Your task to perform on an android device: snooze an email in the gmail app Image 0: 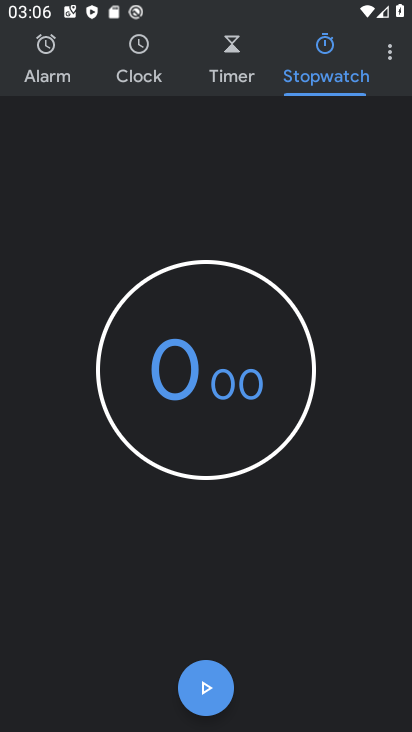
Step 0: press home button
Your task to perform on an android device: snooze an email in the gmail app Image 1: 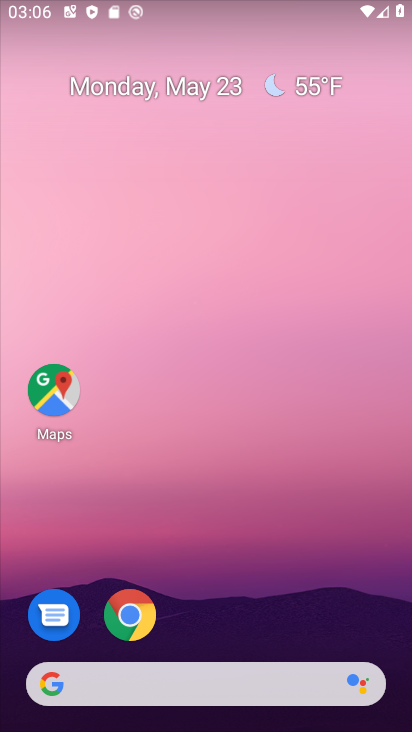
Step 1: drag from (343, 626) to (346, 244)
Your task to perform on an android device: snooze an email in the gmail app Image 2: 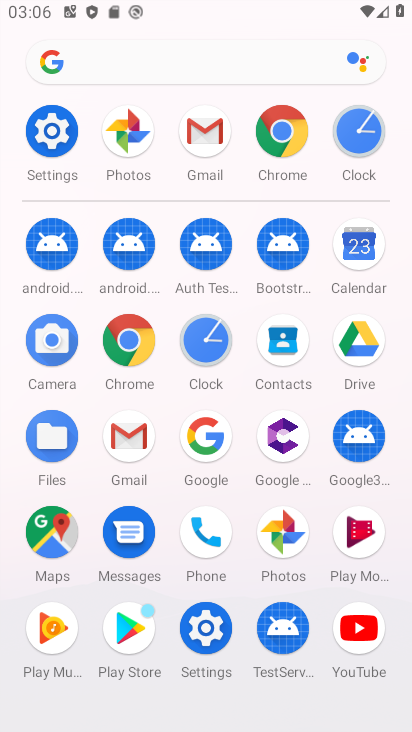
Step 2: click (136, 444)
Your task to perform on an android device: snooze an email in the gmail app Image 3: 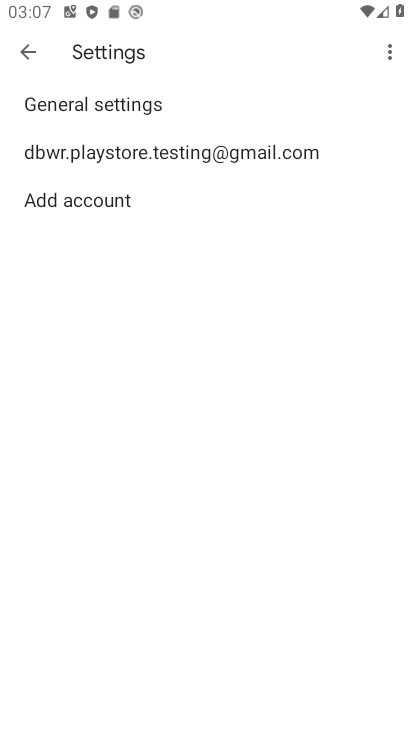
Step 3: click (22, 58)
Your task to perform on an android device: snooze an email in the gmail app Image 4: 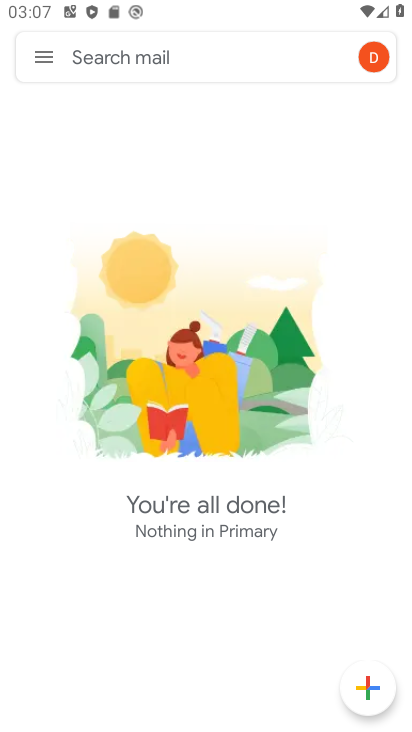
Step 4: click (47, 60)
Your task to perform on an android device: snooze an email in the gmail app Image 5: 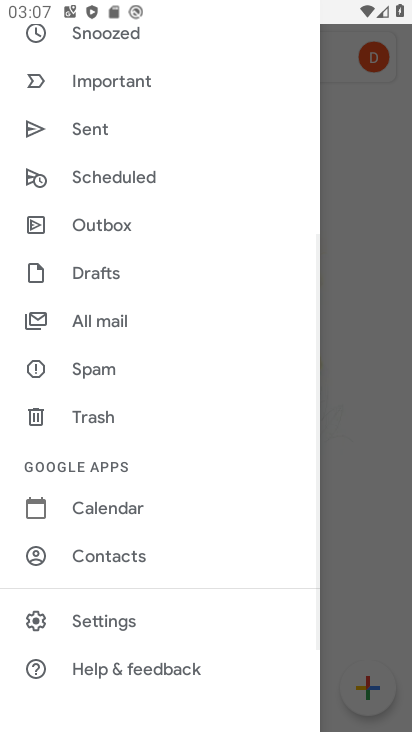
Step 5: drag from (237, 550) to (237, 420)
Your task to perform on an android device: snooze an email in the gmail app Image 6: 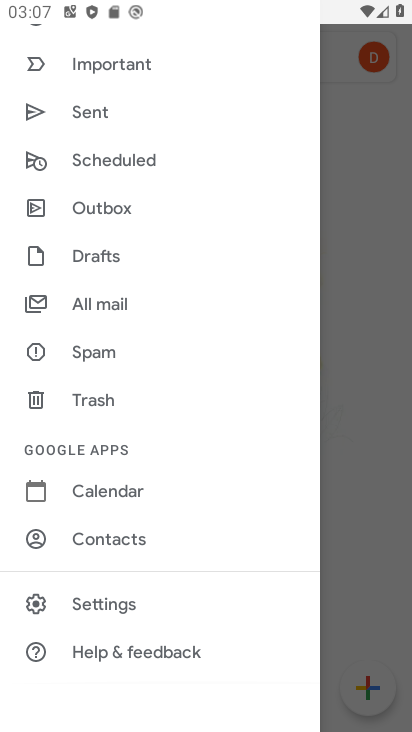
Step 6: drag from (221, 324) to (217, 467)
Your task to perform on an android device: snooze an email in the gmail app Image 7: 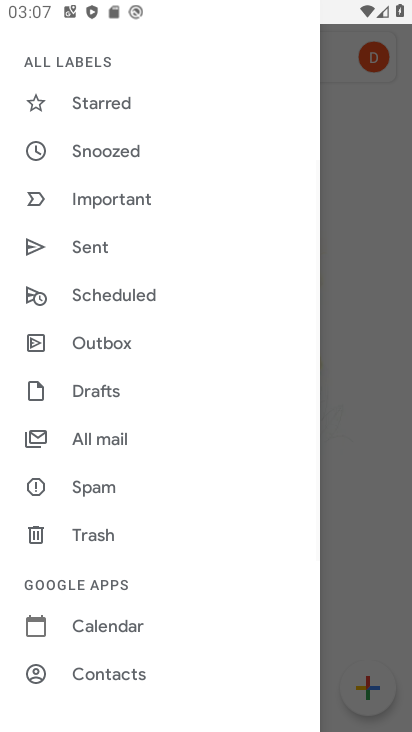
Step 7: drag from (226, 318) to (227, 452)
Your task to perform on an android device: snooze an email in the gmail app Image 8: 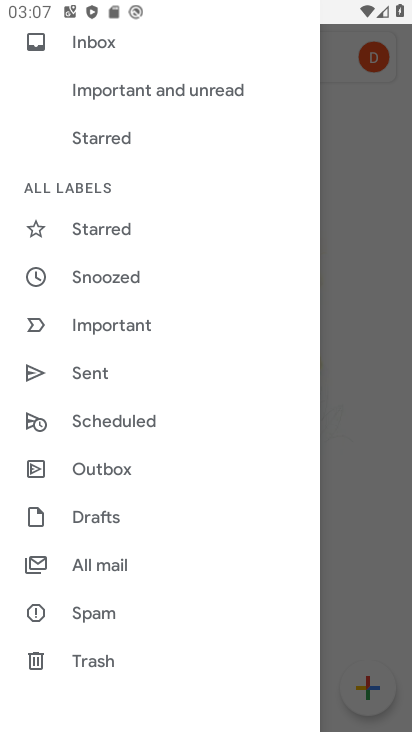
Step 8: click (133, 278)
Your task to perform on an android device: snooze an email in the gmail app Image 9: 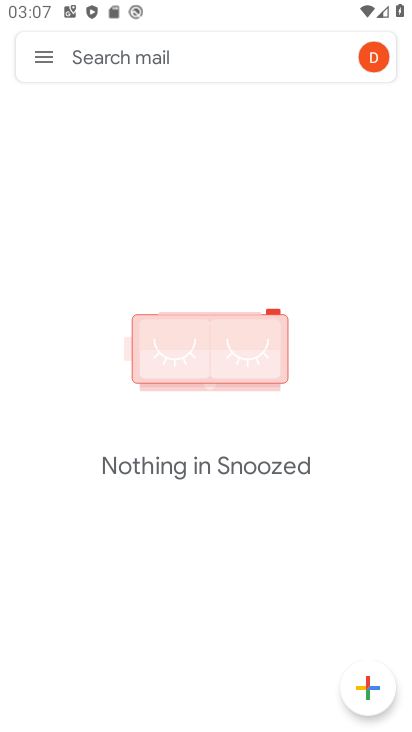
Step 9: task complete